Your task to perform on an android device: turn pop-ups off in chrome Image 0: 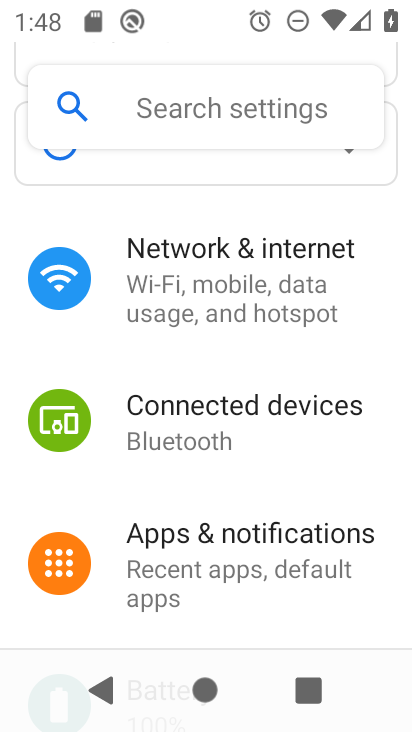
Step 0: press home button
Your task to perform on an android device: turn pop-ups off in chrome Image 1: 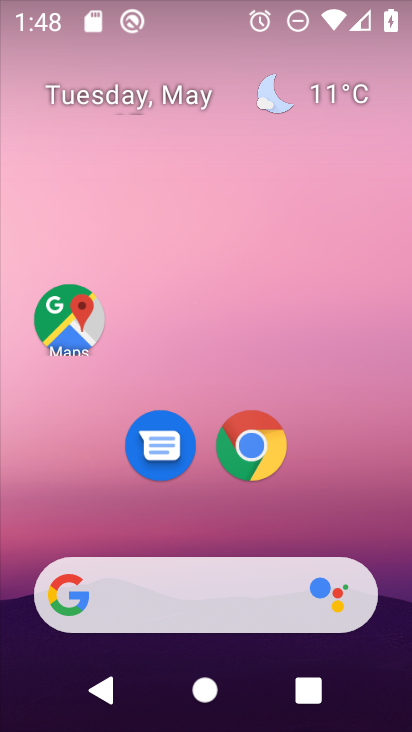
Step 1: click (273, 465)
Your task to perform on an android device: turn pop-ups off in chrome Image 2: 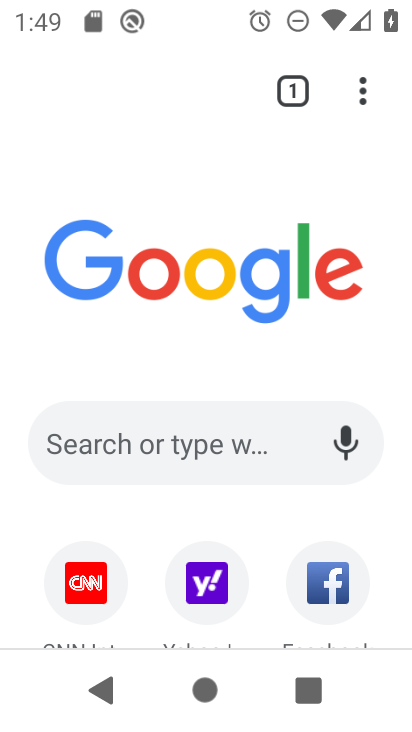
Step 2: click (367, 83)
Your task to perform on an android device: turn pop-ups off in chrome Image 3: 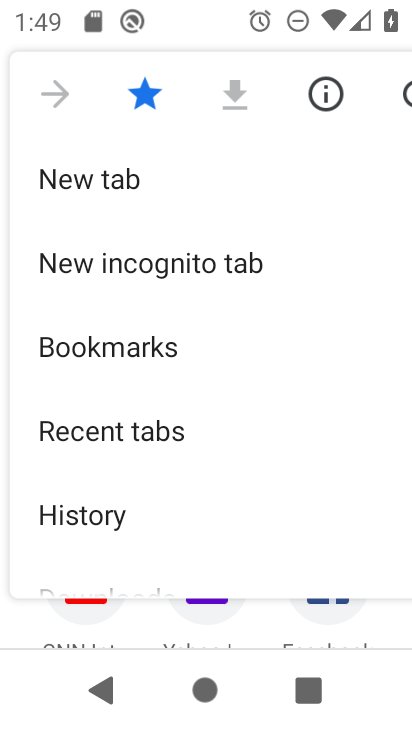
Step 3: drag from (270, 537) to (199, 261)
Your task to perform on an android device: turn pop-ups off in chrome Image 4: 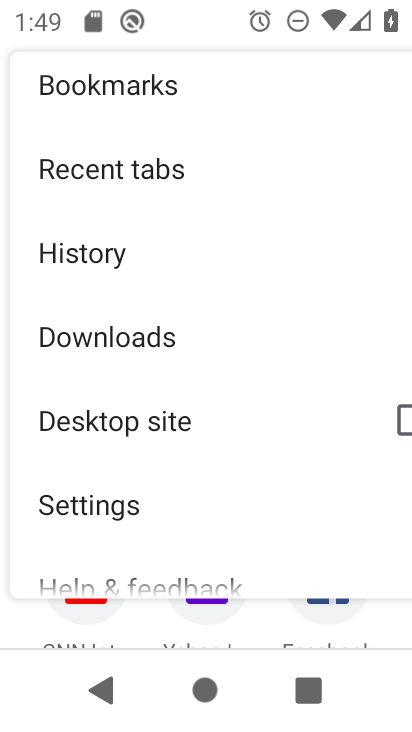
Step 4: click (146, 511)
Your task to perform on an android device: turn pop-ups off in chrome Image 5: 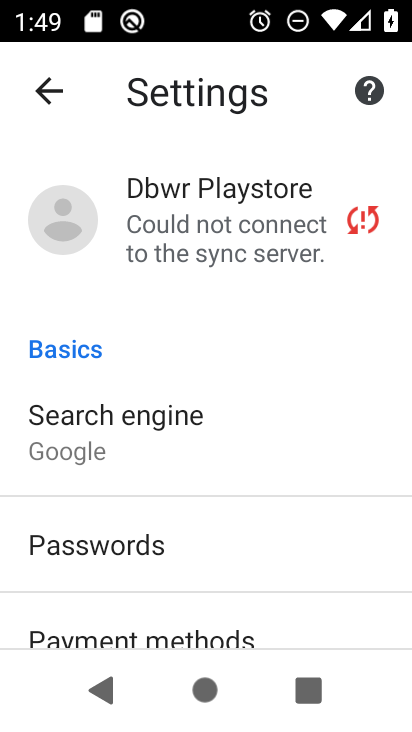
Step 5: drag from (173, 608) to (116, 267)
Your task to perform on an android device: turn pop-ups off in chrome Image 6: 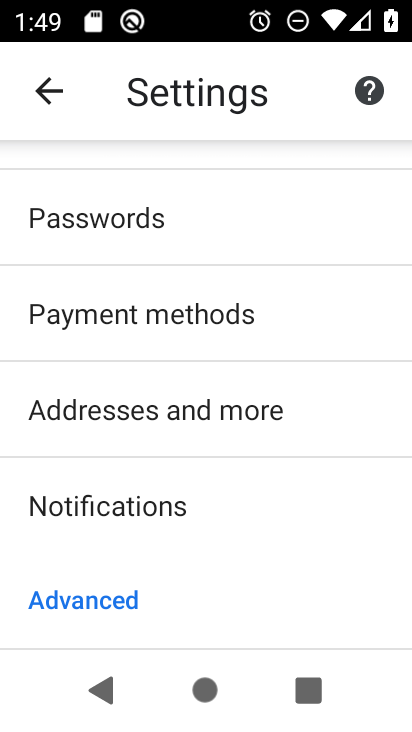
Step 6: drag from (130, 596) to (77, 292)
Your task to perform on an android device: turn pop-ups off in chrome Image 7: 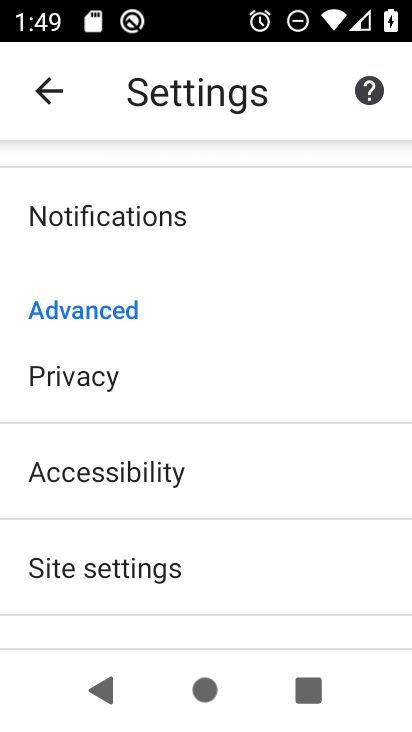
Step 7: click (166, 553)
Your task to perform on an android device: turn pop-ups off in chrome Image 8: 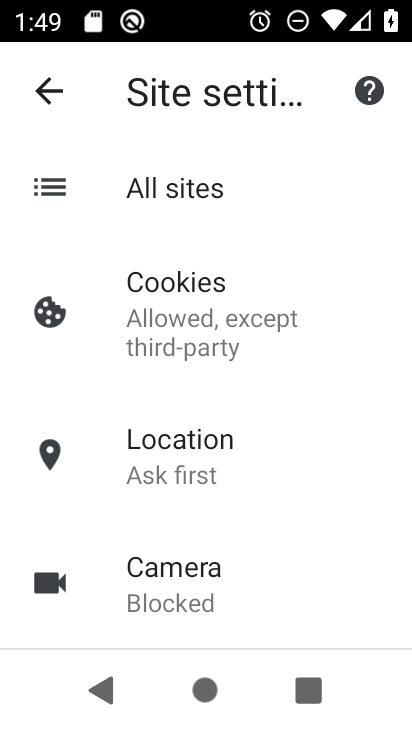
Step 8: drag from (231, 537) to (163, 187)
Your task to perform on an android device: turn pop-ups off in chrome Image 9: 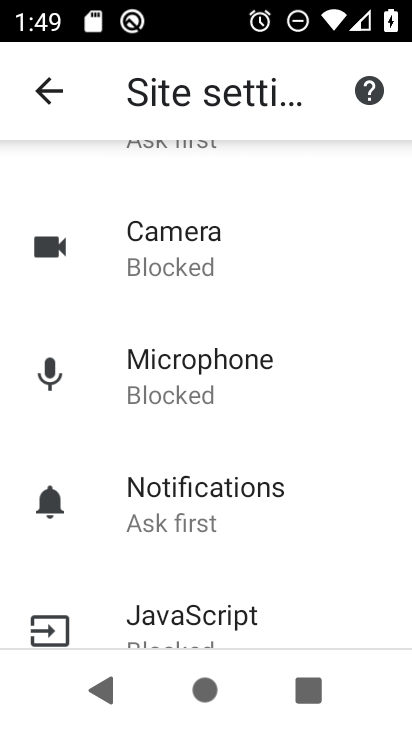
Step 9: drag from (240, 572) to (207, 263)
Your task to perform on an android device: turn pop-ups off in chrome Image 10: 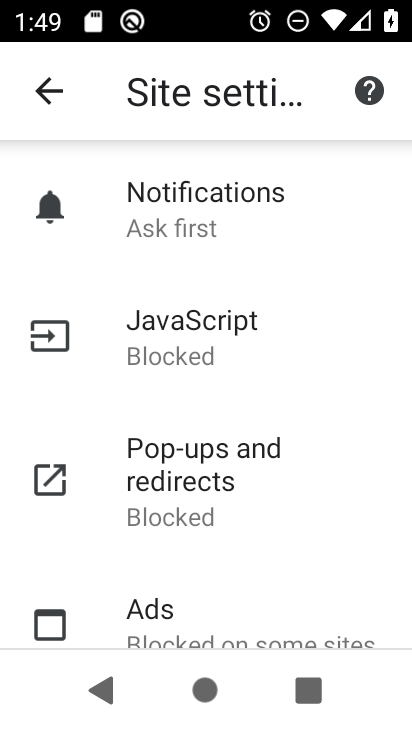
Step 10: click (232, 472)
Your task to perform on an android device: turn pop-ups off in chrome Image 11: 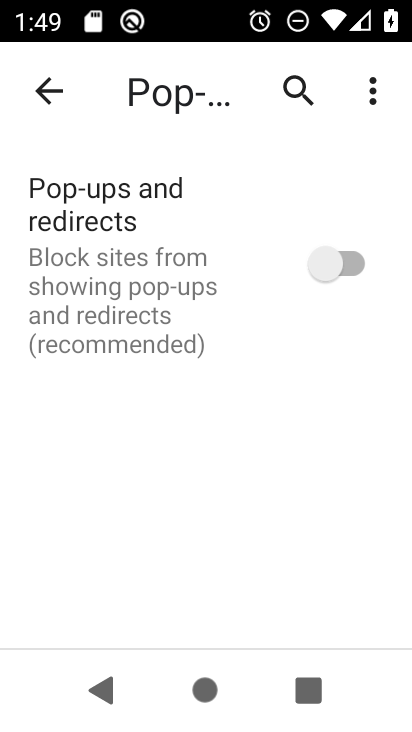
Step 11: task complete